Your task to perform on an android device: change the clock display to analog Image 0: 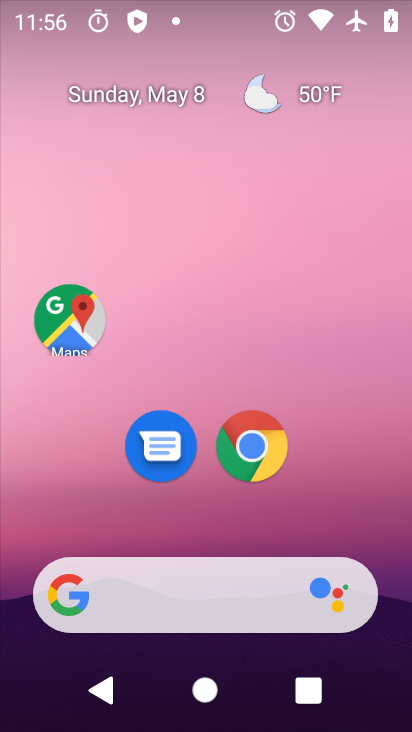
Step 0: drag from (311, 536) to (215, 68)
Your task to perform on an android device: change the clock display to analog Image 1: 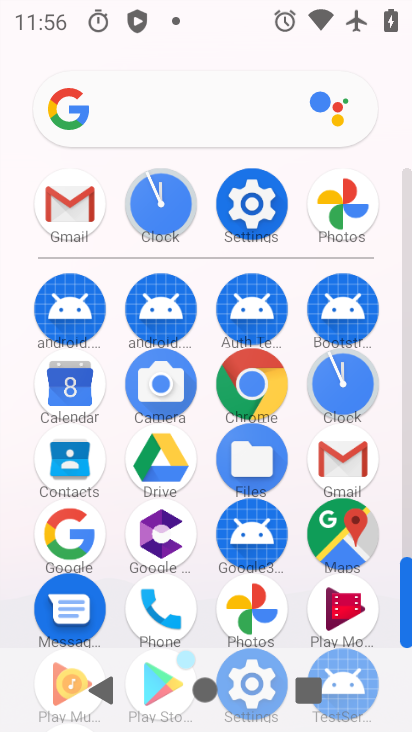
Step 1: click (330, 366)
Your task to perform on an android device: change the clock display to analog Image 2: 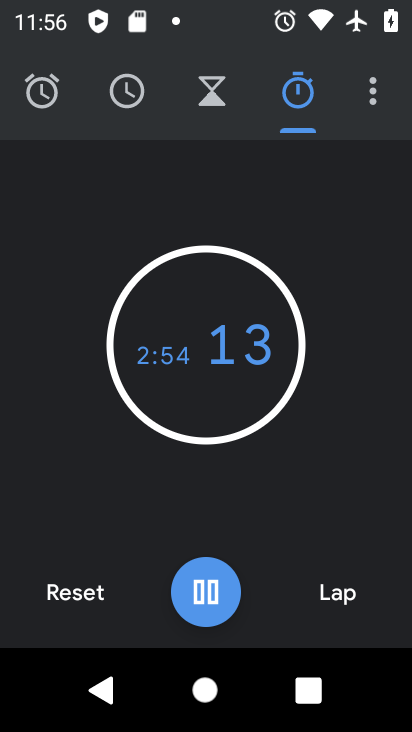
Step 2: click (374, 91)
Your task to perform on an android device: change the clock display to analog Image 3: 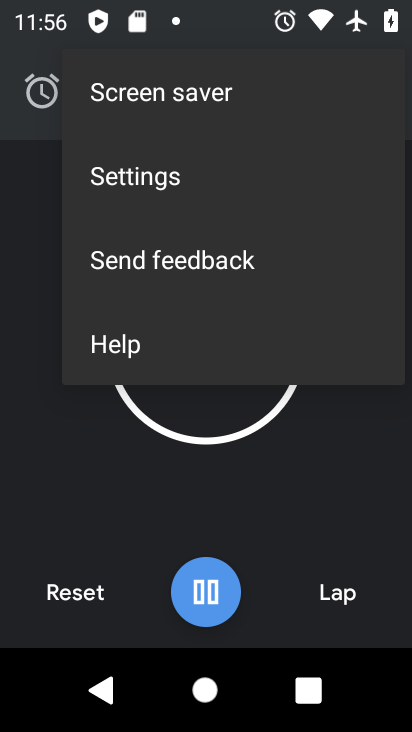
Step 3: click (228, 173)
Your task to perform on an android device: change the clock display to analog Image 4: 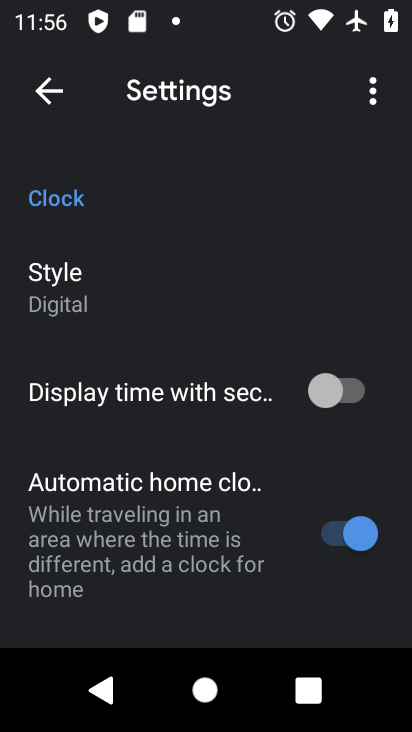
Step 4: click (130, 308)
Your task to perform on an android device: change the clock display to analog Image 5: 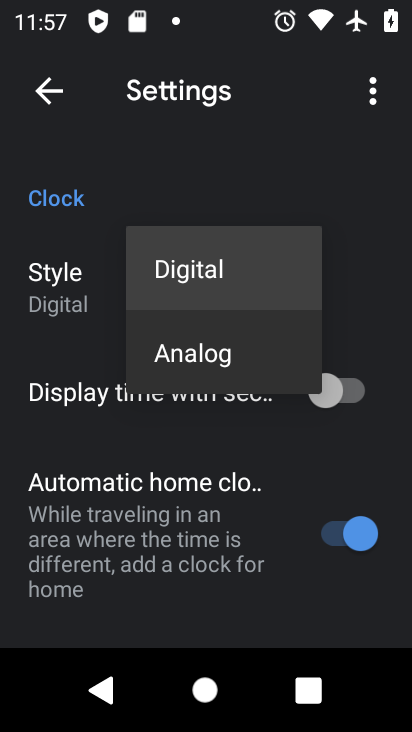
Step 5: click (161, 355)
Your task to perform on an android device: change the clock display to analog Image 6: 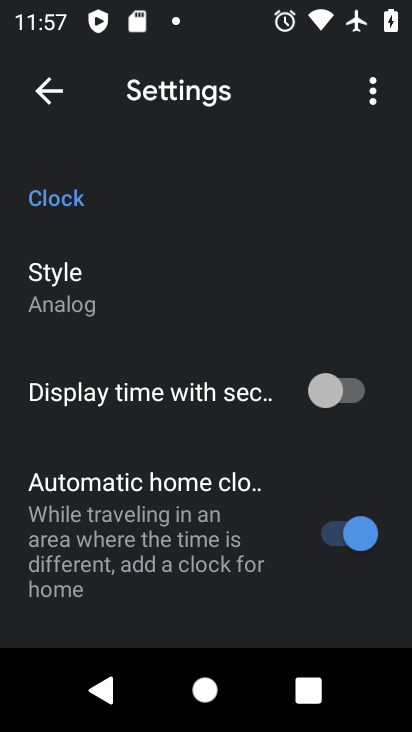
Step 6: task complete